Your task to perform on an android device: Open wifi settings Image 0: 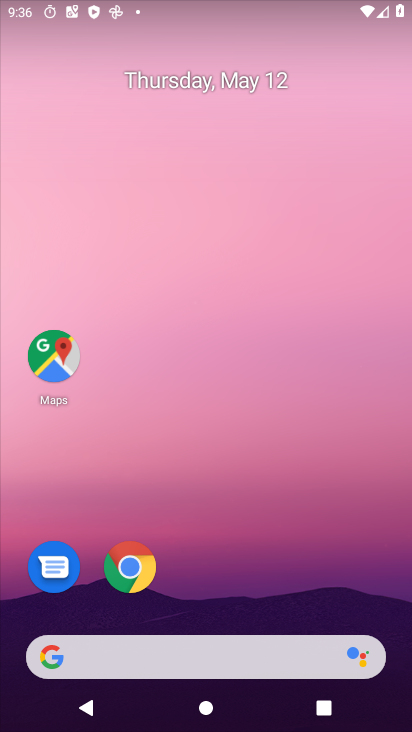
Step 0: drag from (233, 644) to (280, 177)
Your task to perform on an android device: Open wifi settings Image 1: 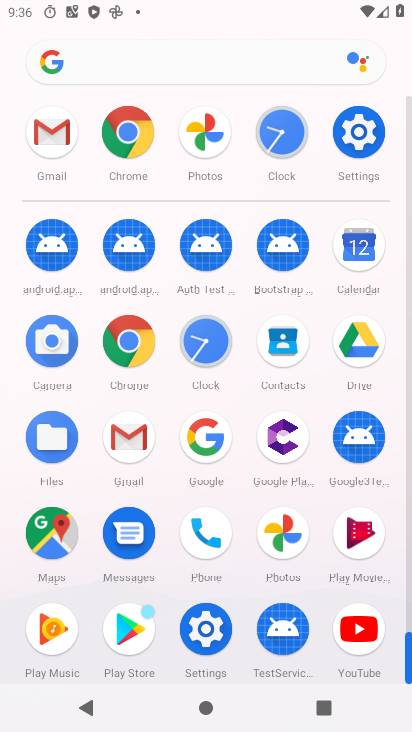
Step 1: click (363, 160)
Your task to perform on an android device: Open wifi settings Image 2: 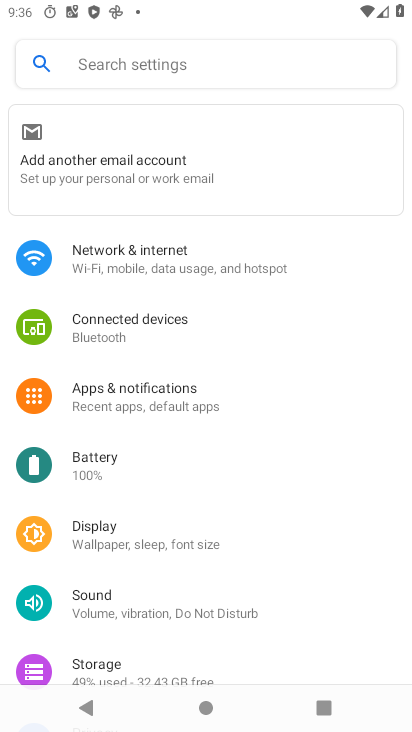
Step 2: click (241, 270)
Your task to perform on an android device: Open wifi settings Image 3: 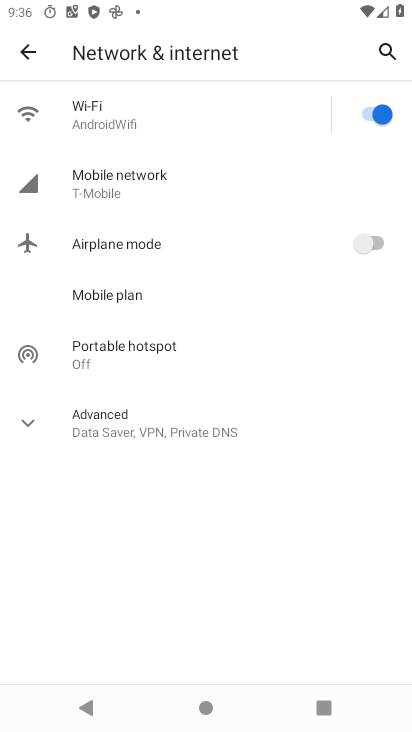
Step 3: click (233, 127)
Your task to perform on an android device: Open wifi settings Image 4: 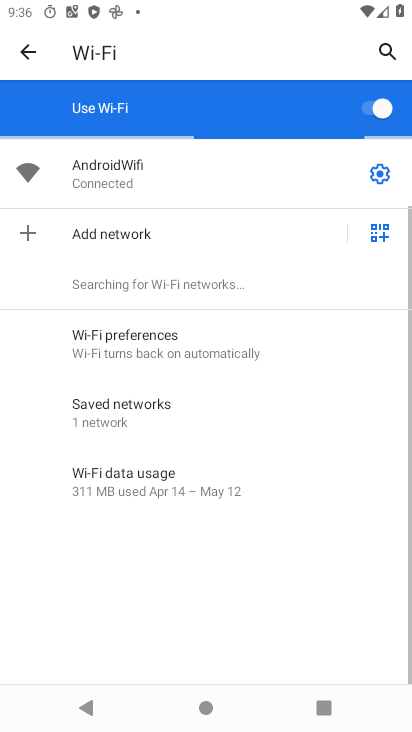
Step 4: task complete